Your task to perform on an android device: check out phone information Image 0: 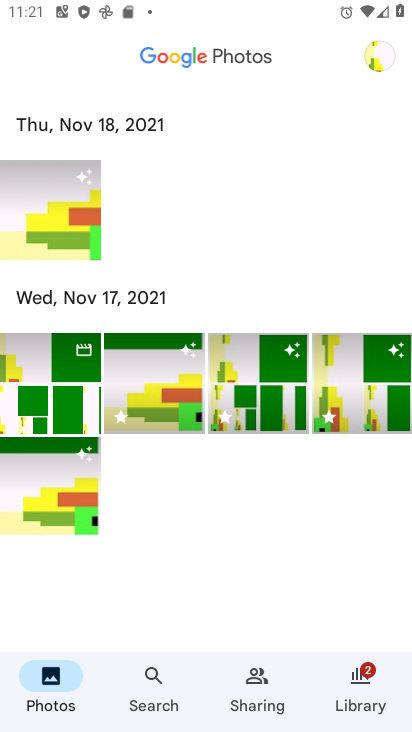
Step 0: press home button
Your task to perform on an android device: check out phone information Image 1: 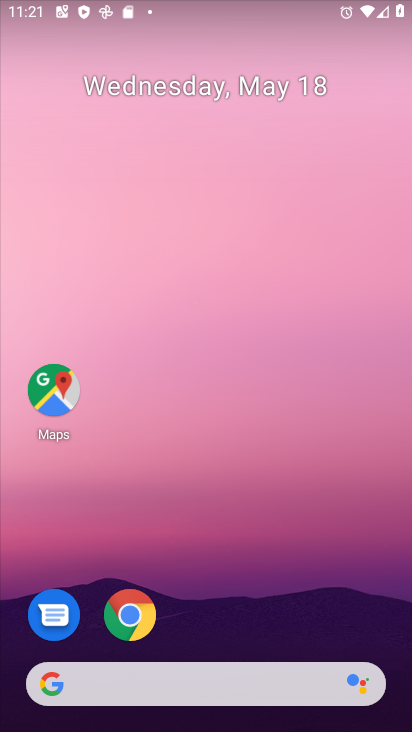
Step 1: drag from (174, 521) to (174, 115)
Your task to perform on an android device: check out phone information Image 2: 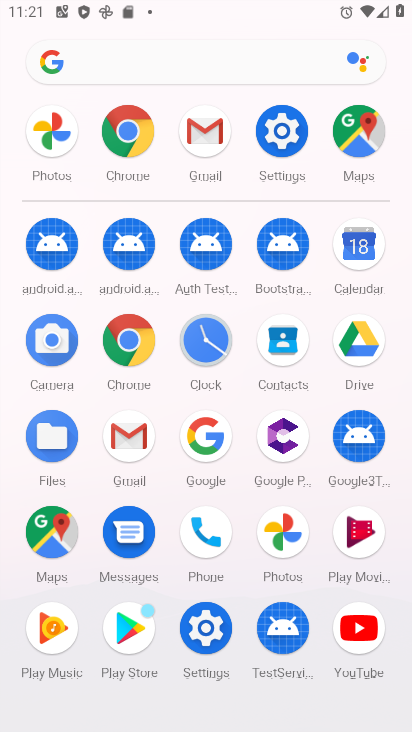
Step 2: click (201, 538)
Your task to perform on an android device: check out phone information Image 3: 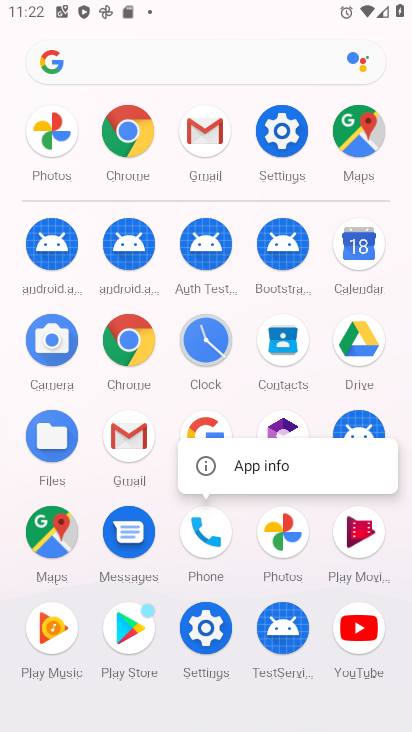
Step 3: click (236, 469)
Your task to perform on an android device: check out phone information Image 4: 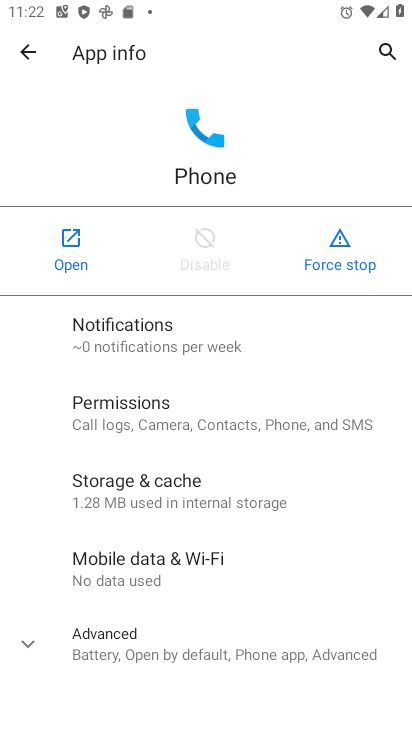
Step 4: click (100, 644)
Your task to perform on an android device: check out phone information Image 5: 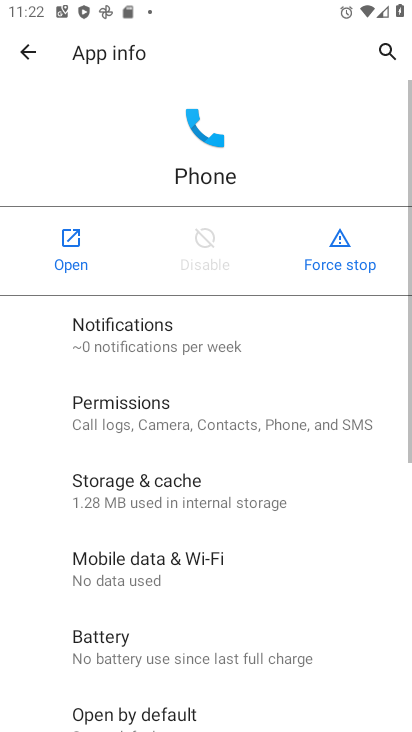
Step 5: task complete